Your task to perform on an android device: Open Google Chrome Image 0: 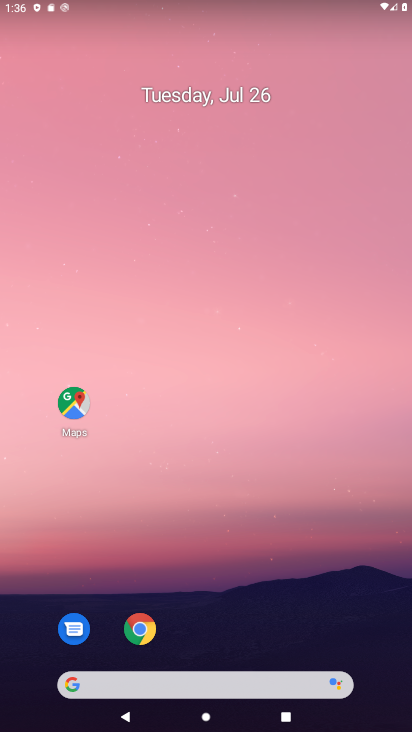
Step 0: click (142, 630)
Your task to perform on an android device: Open Google Chrome Image 1: 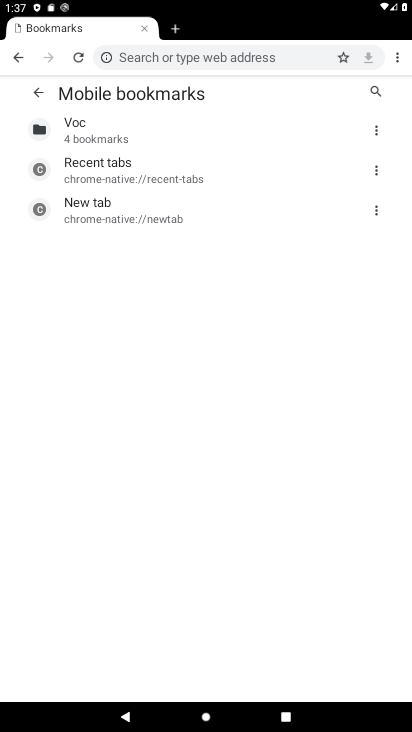
Step 1: task complete